Your task to perform on an android device: Find coffee shops on Maps Image 0: 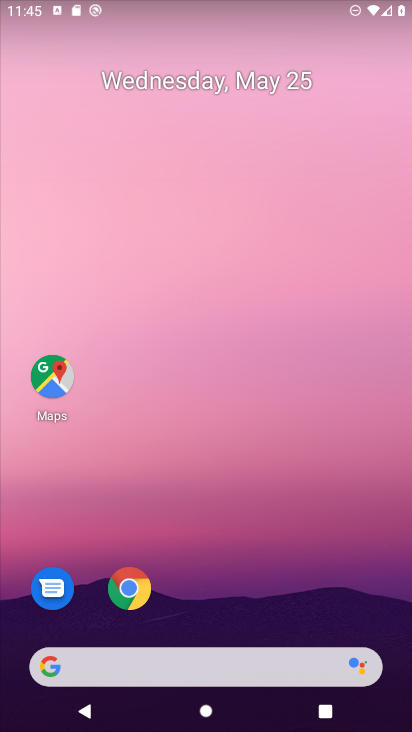
Step 0: press home button
Your task to perform on an android device: Find coffee shops on Maps Image 1: 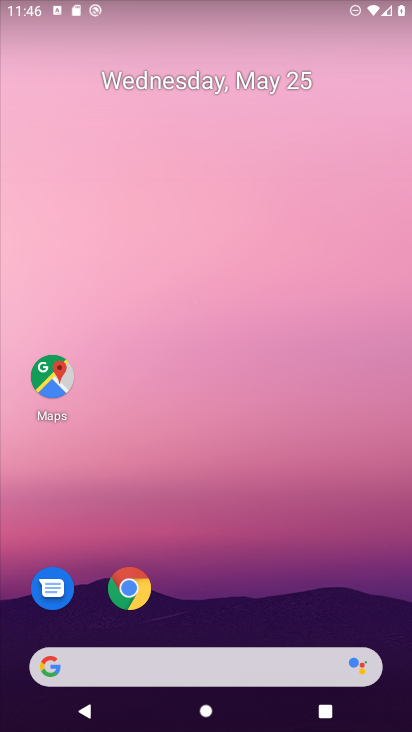
Step 1: click (50, 377)
Your task to perform on an android device: Find coffee shops on Maps Image 2: 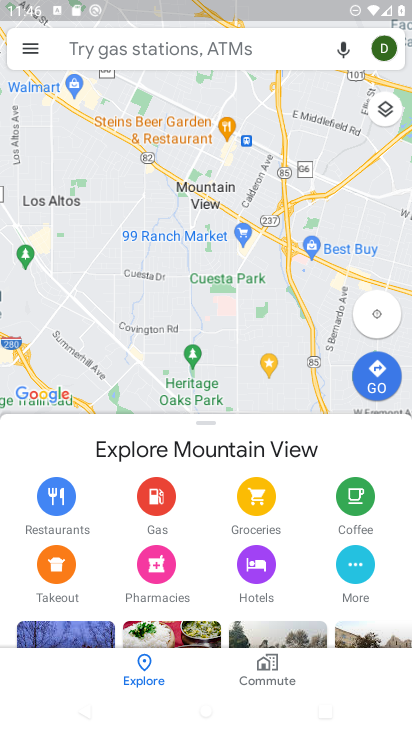
Step 2: click (219, 49)
Your task to perform on an android device: Find coffee shops on Maps Image 3: 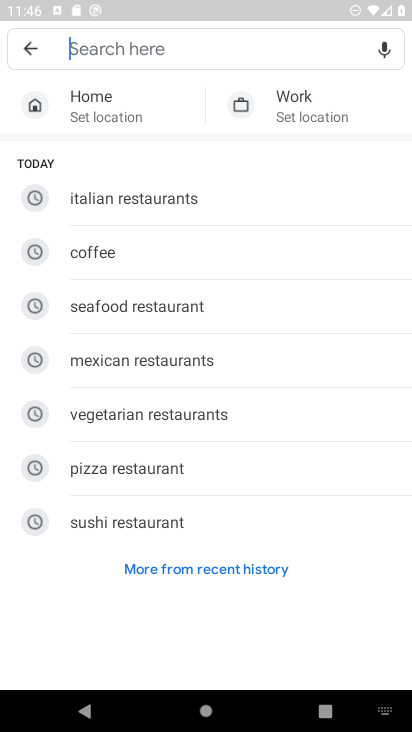
Step 3: click (95, 258)
Your task to perform on an android device: Find coffee shops on Maps Image 4: 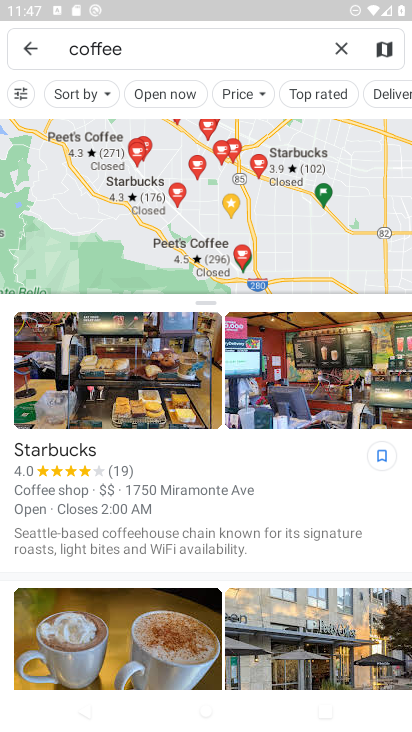
Step 4: task complete